Your task to perform on an android device: What's on my calendar today? Image 0: 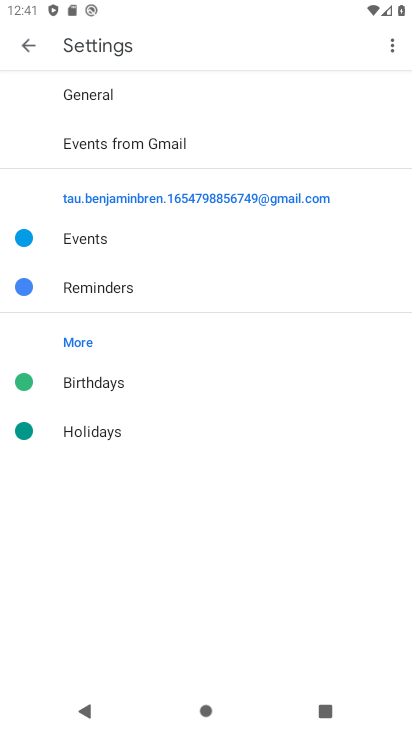
Step 0: press home button
Your task to perform on an android device: What's on my calendar today? Image 1: 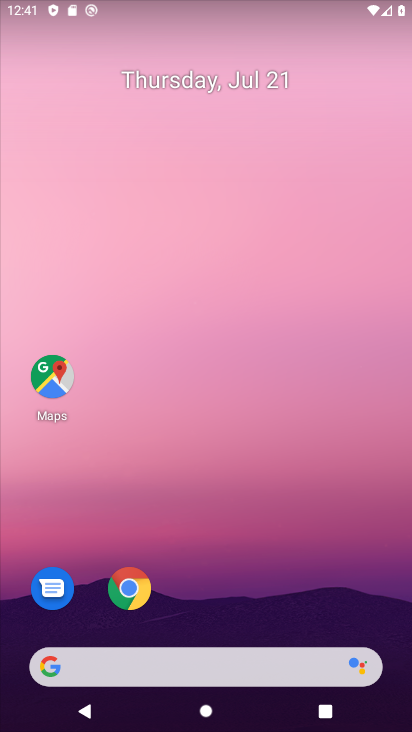
Step 1: drag from (261, 576) to (293, 323)
Your task to perform on an android device: What's on my calendar today? Image 2: 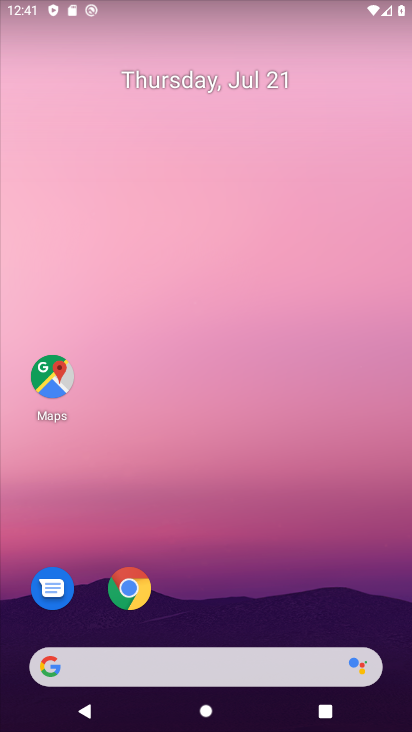
Step 2: drag from (286, 536) to (280, 253)
Your task to perform on an android device: What's on my calendar today? Image 3: 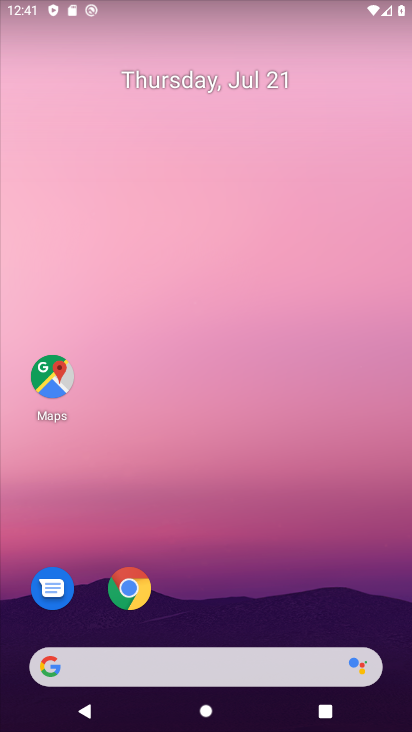
Step 3: drag from (303, 249) to (294, 133)
Your task to perform on an android device: What's on my calendar today? Image 4: 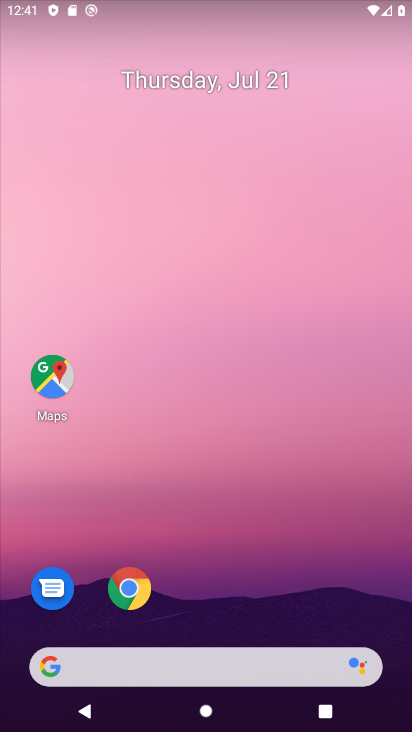
Step 4: drag from (241, 598) to (281, 166)
Your task to perform on an android device: What's on my calendar today? Image 5: 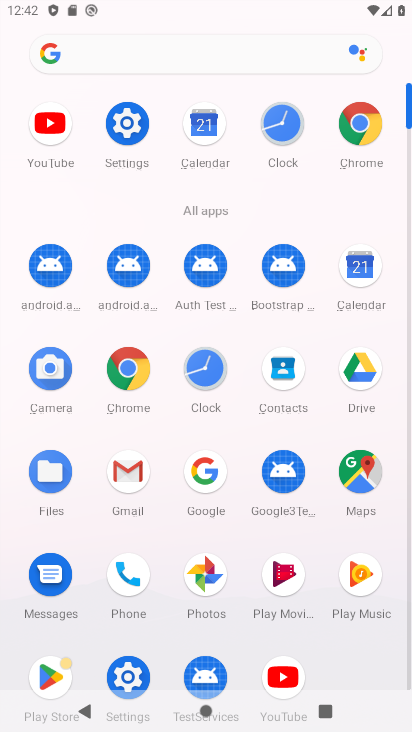
Step 5: click (359, 272)
Your task to perform on an android device: What's on my calendar today? Image 6: 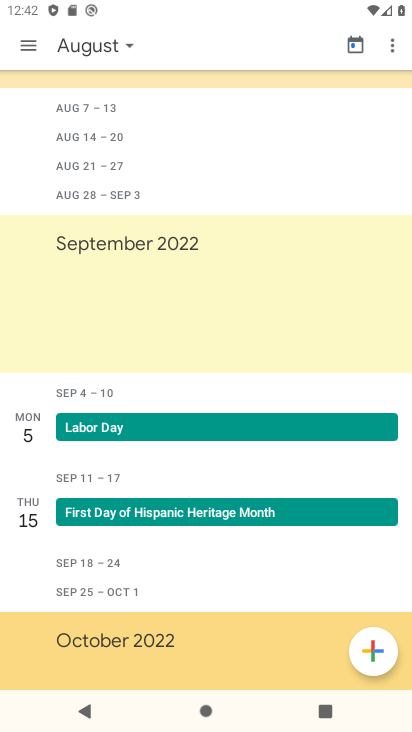
Step 6: task complete